Your task to perform on an android device: turn on location history Image 0: 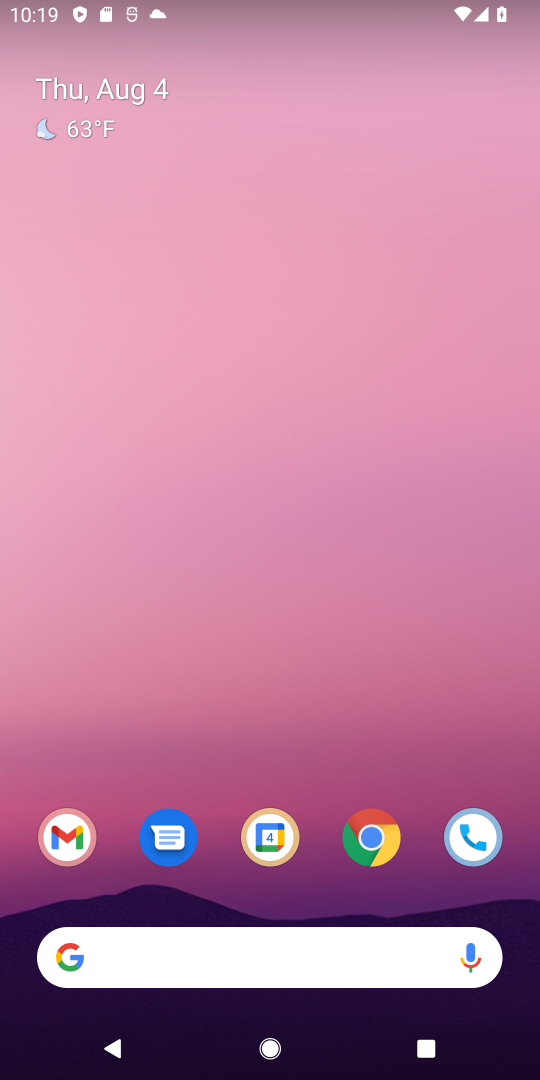
Step 0: drag from (328, 898) to (397, 131)
Your task to perform on an android device: turn on location history Image 1: 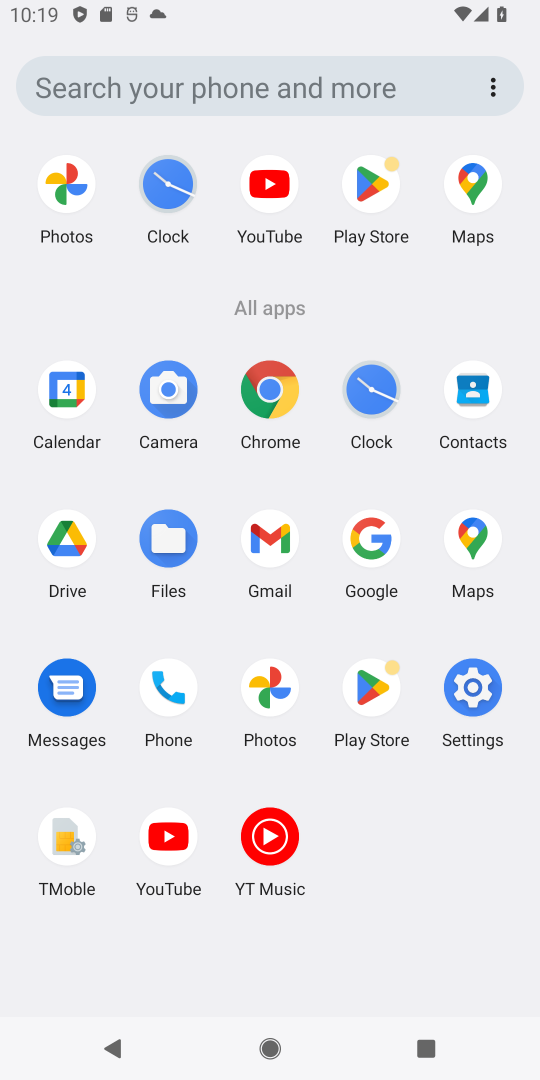
Step 1: click (483, 683)
Your task to perform on an android device: turn on location history Image 2: 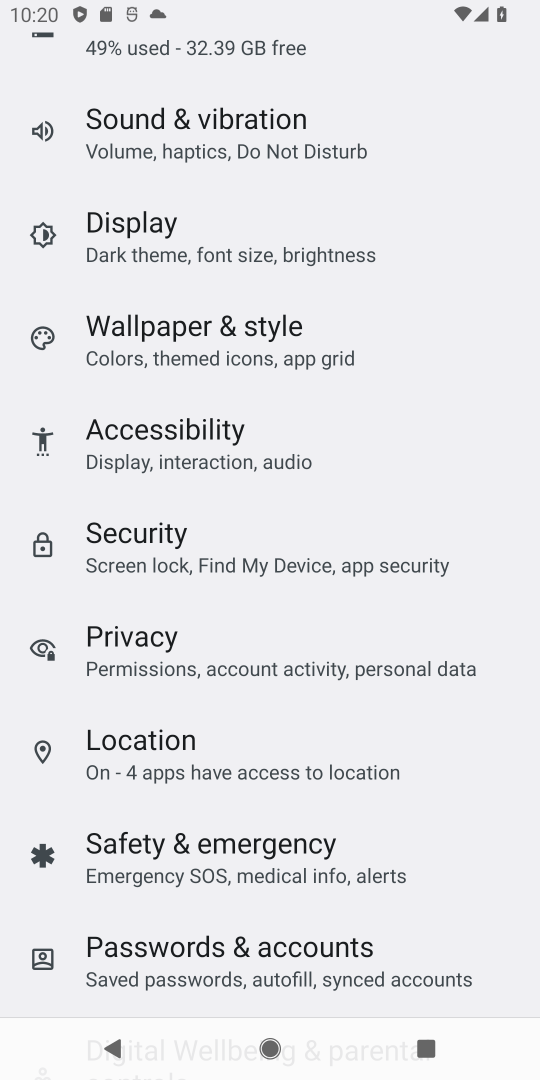
Step 2: click (196, 740)
Your task to perform on an android device: turn on location history Image 3: 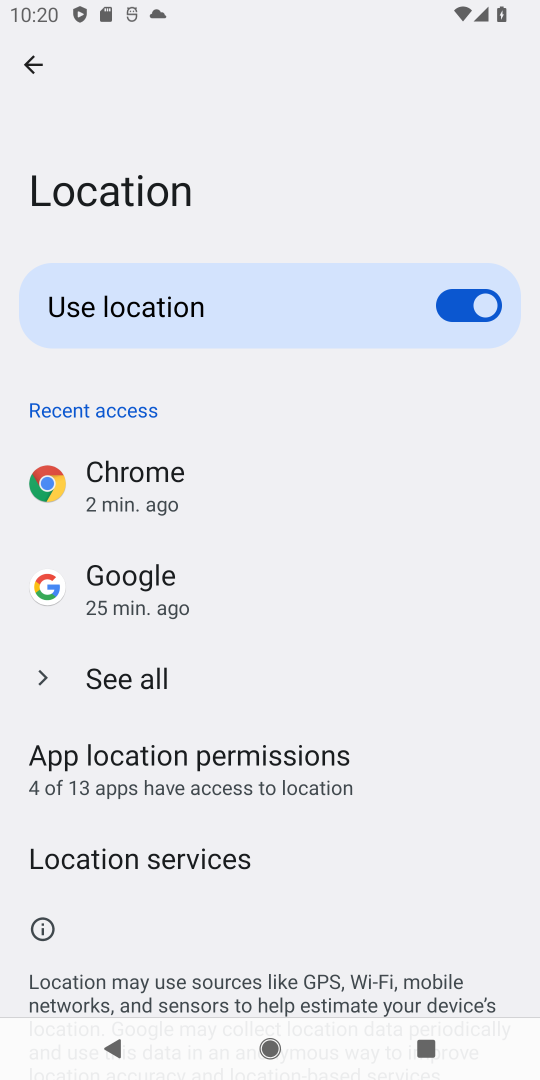
Step 3: click (159, 854)
Your task to perform on an android device: turn on location history Image 4: 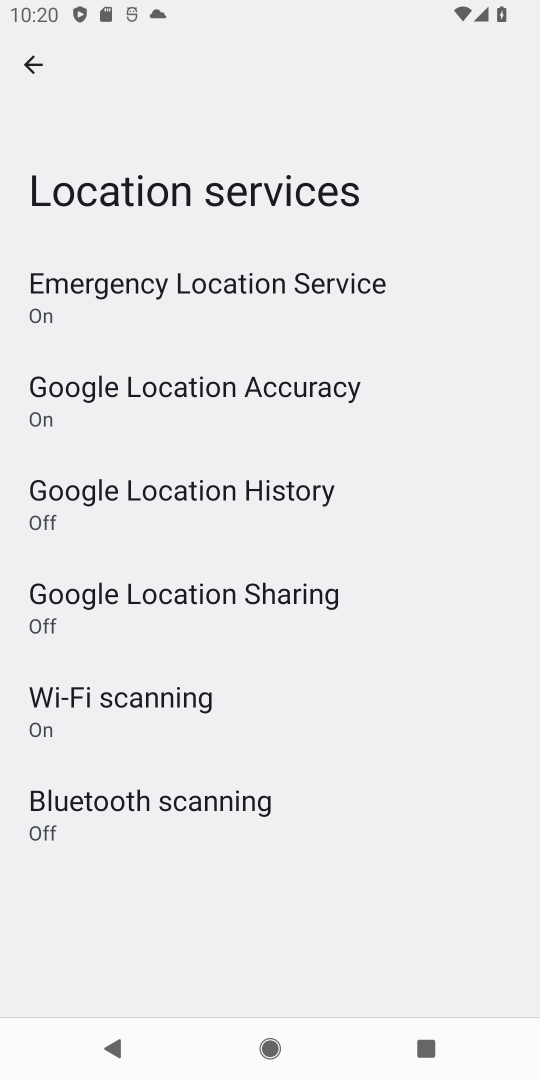
Step 4: click (257, 508)
Your task to perform on an android device: turn on location history Image 5: 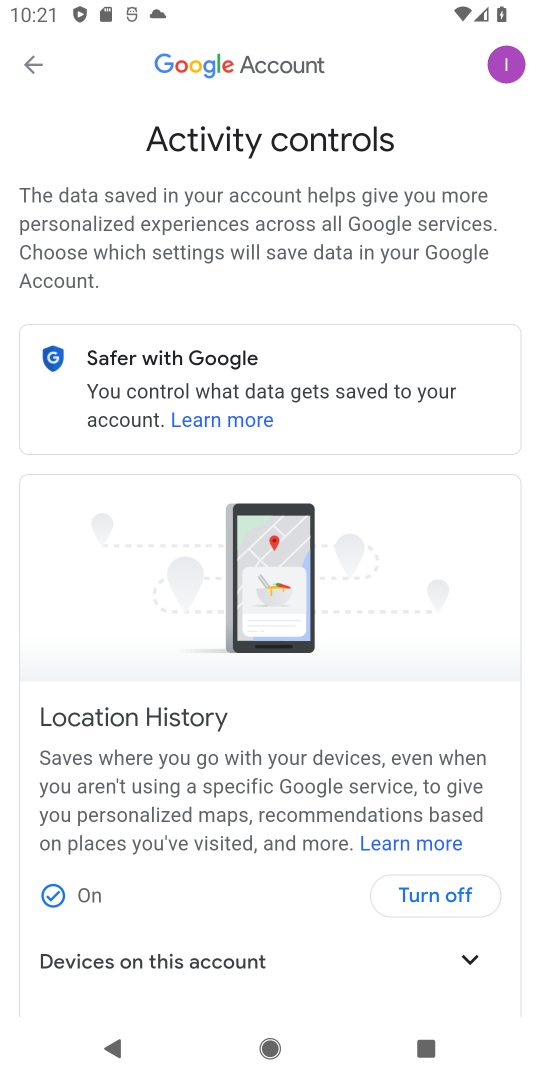
Step 5: task complete